Your task to perform on an android device: toggle javascript in the chrome app Image 0: 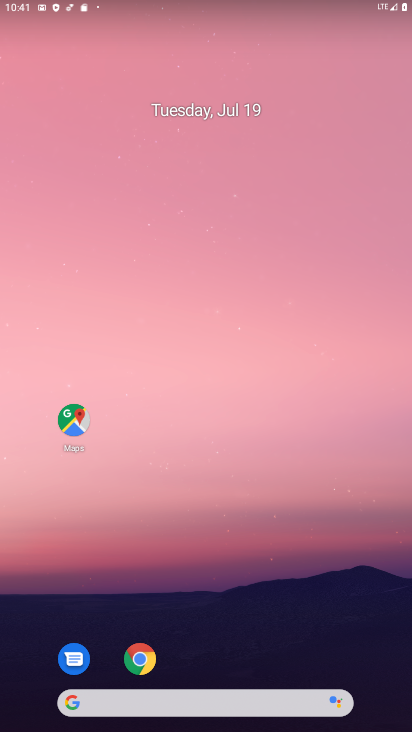
Step 0: click (142, 666)
Your task to perform on an android device: toggle javascript in the chrome app Image 1: 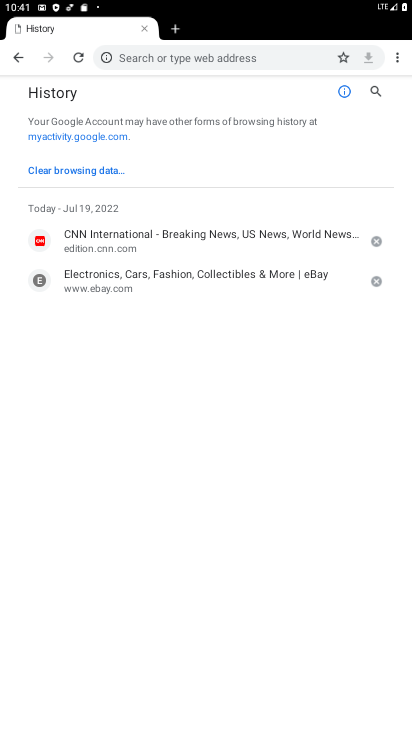
Step 1: task complete